Your task to perform on an android device: Toggle the flashlight Image 0: 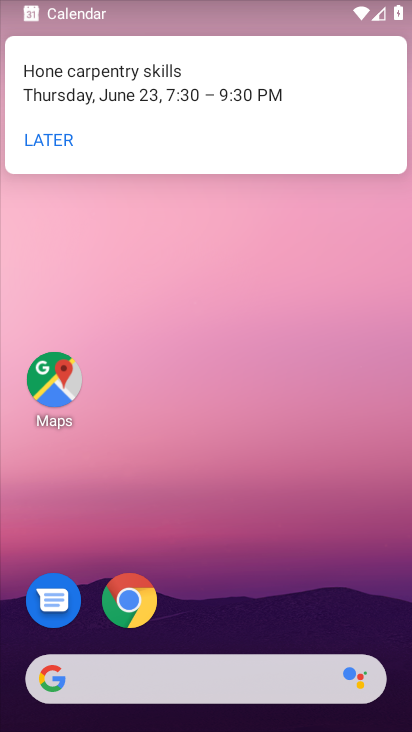
Step 0: drag from (294, 700) to (328, 120)
Your task to perform on an android device: Toggle the flashlight Image 1: 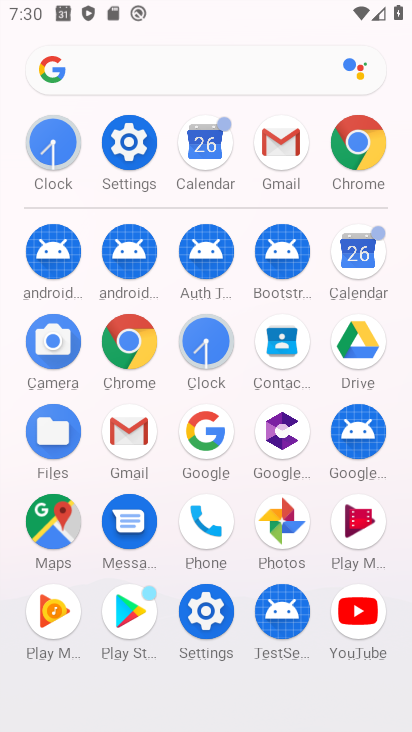
Step 1: click (204, 613)
Your task to perform on an android device: Toggle the flashlight Image 2: 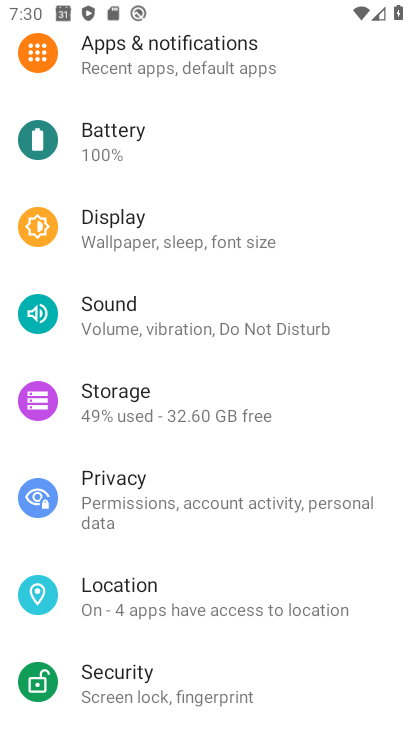
Step 2: drag from (176, 152) to (240, 440)
Your task to perform on an android device: Toggle the flashlight Image 3: 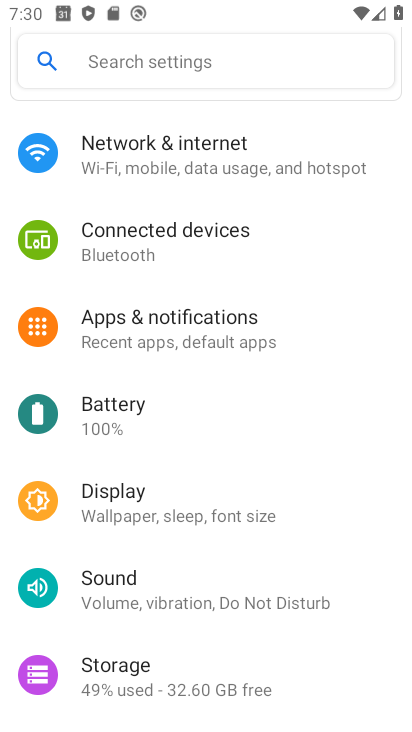
Step 3: click (144, 69)
Your task to perform on an android device: Toggle the flashlight Image 4: 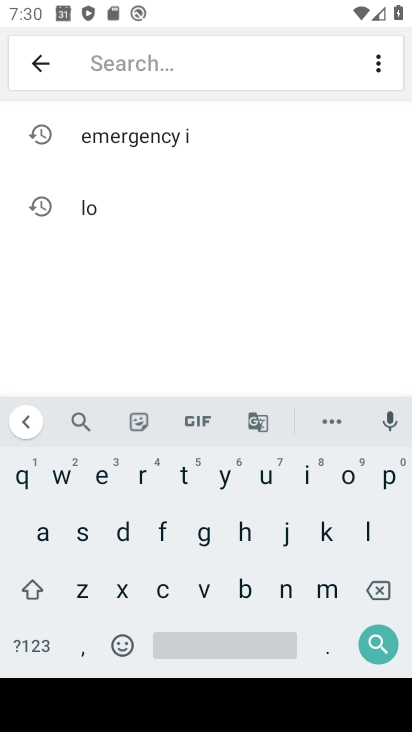
Step 4: click (157, 525)
Your task to perform on an android device: Toggle the flashlight Image 5: 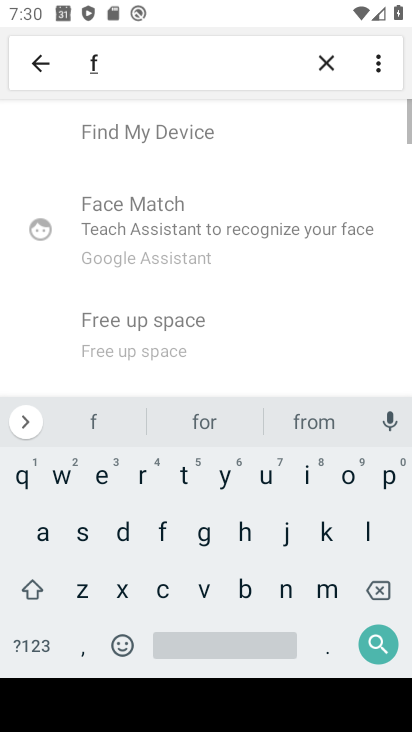
Step 5: click (368, 530)
Your task to perform on an android device: Toggle the flashlight Image 6: 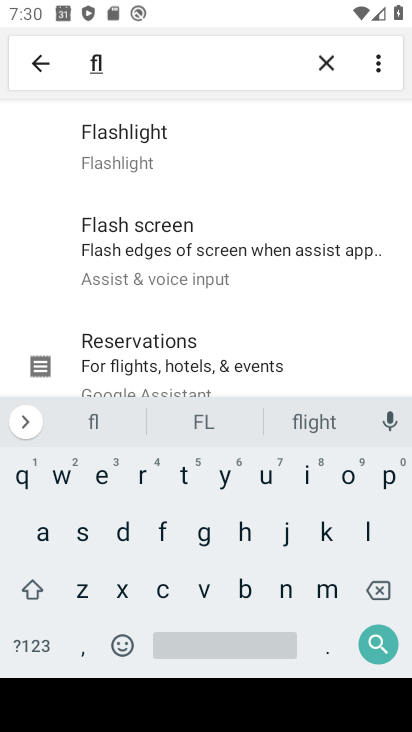
Step 6: click (166, 144)
Your task to perform on an android device: Toggle the flashlight Image 7: 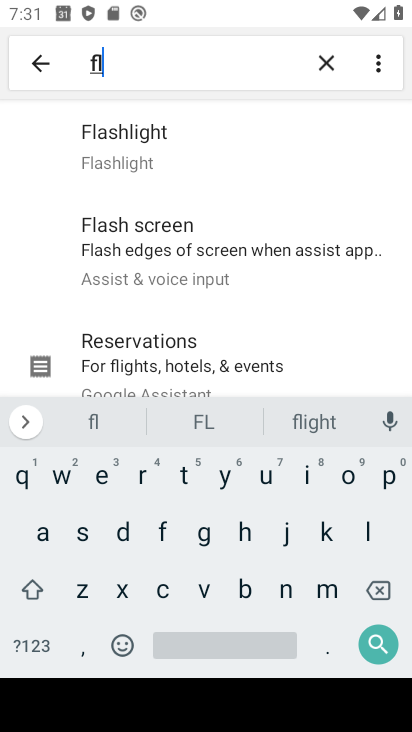
Step 7: task complete